Your task to perform on an android device: Go to sound settings Image 0: 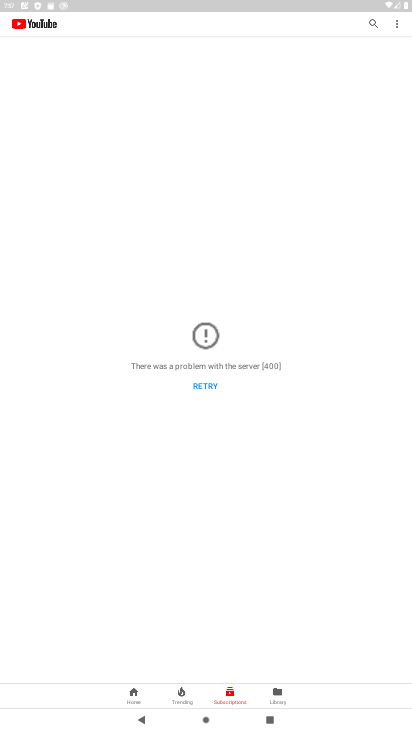
Step 0: press home button
Your task to perform on an android device: Go to sound settings Image 1: 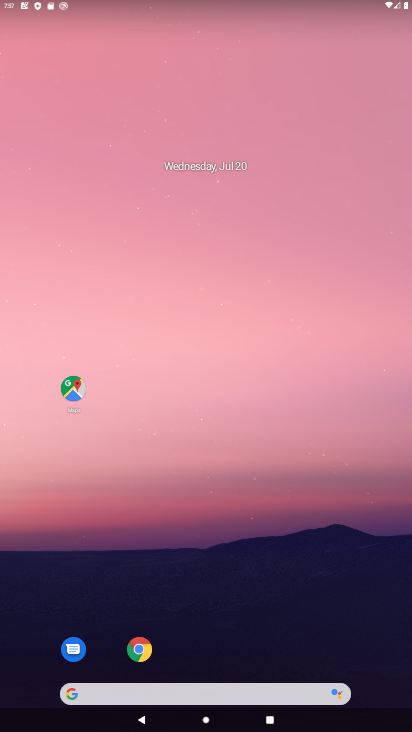
Step 1: drag from (263, 674) to (227, 9)
Your task to perform on an android device: Go to sound settings Image 2: 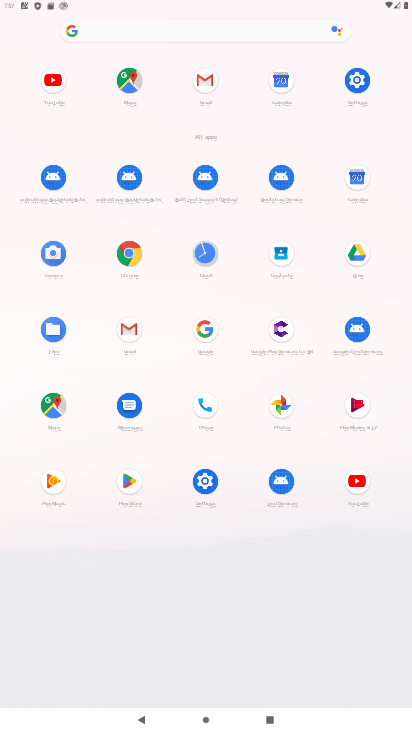
Step 2: click (348, 104)
Your task to perform on an android device: Go to sound settings Image 3: 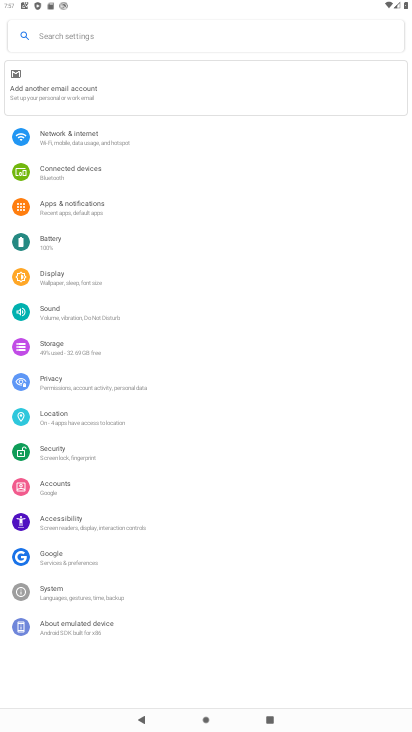
Step 3: click (106, 320)
Your task to perform on an android device: Go to sound settings Image 4: 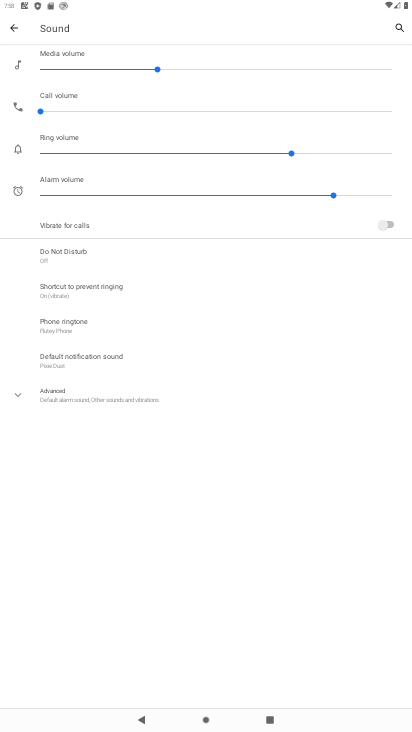
Step 4: task complete